Your task to perform on an android device: Go to Reddit.com Image 0: 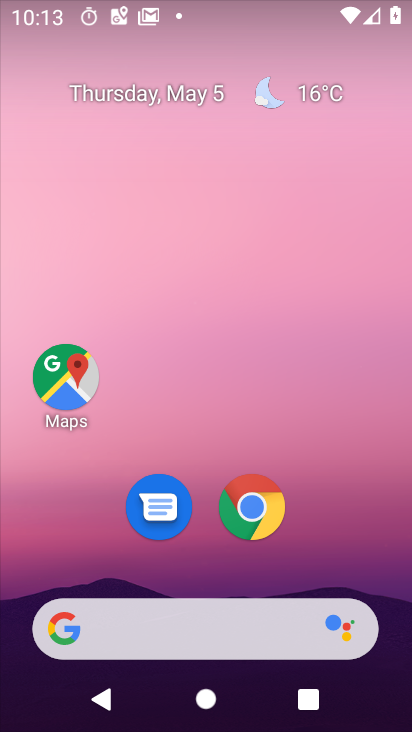
Step 0: click (241, 513)
Your task to perform on an android device: Go to Reddit.com Image 1: 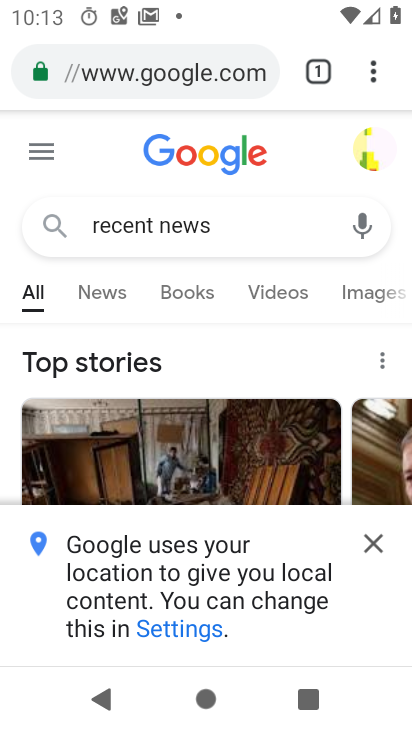
Step 1: click (136, 80)
Your task to perform on an android device: Go to Reddit.com Image 2: 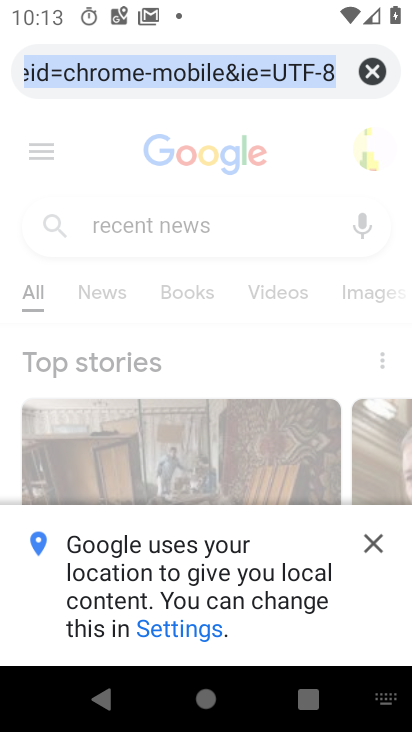
Step 2: type "reddit.com"
Your task to perform on an android device: Go to Reddit.com Image 3: 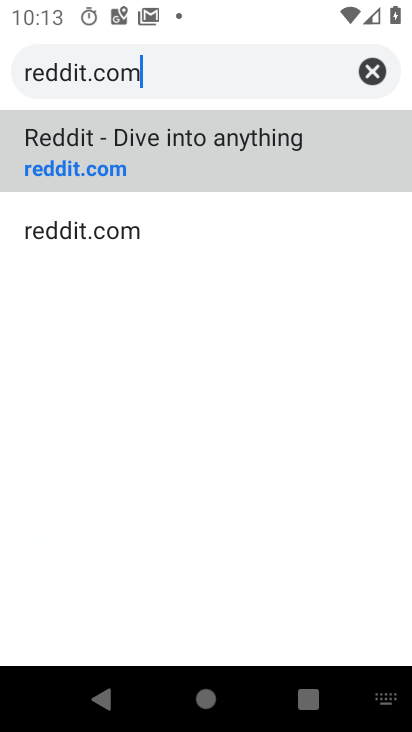
Step 3: click (132, 163)
Your task to perform on an android device: Go to Reddit.com Image 4: 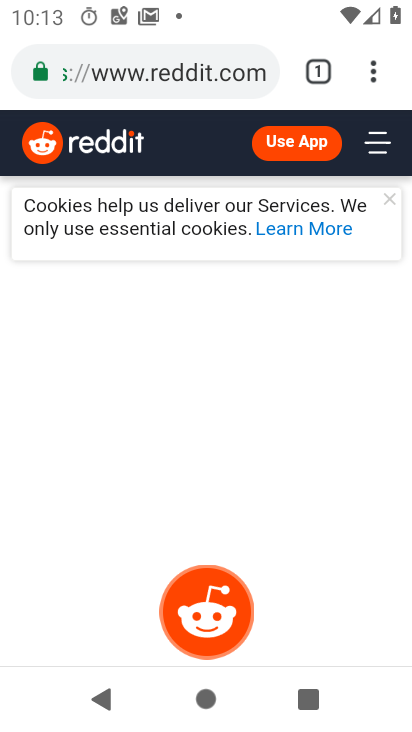
Step 4: task complete